Your task to perform on an android device: check the backup settings in the google photos Image 0: 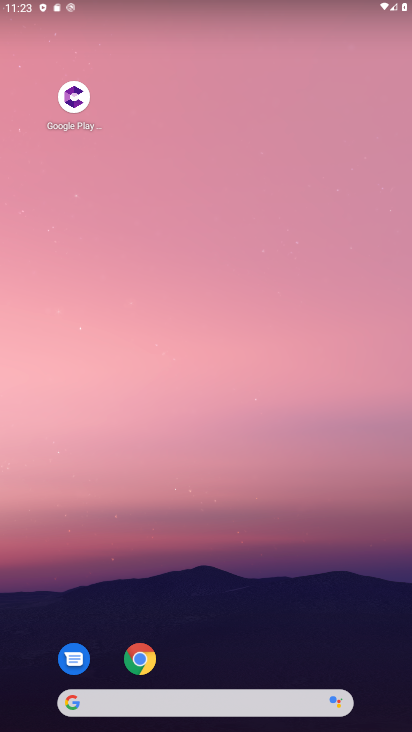
Step 0: task complete